Your task to perform on an android device: turn on data saver in the chrome app Image 0: 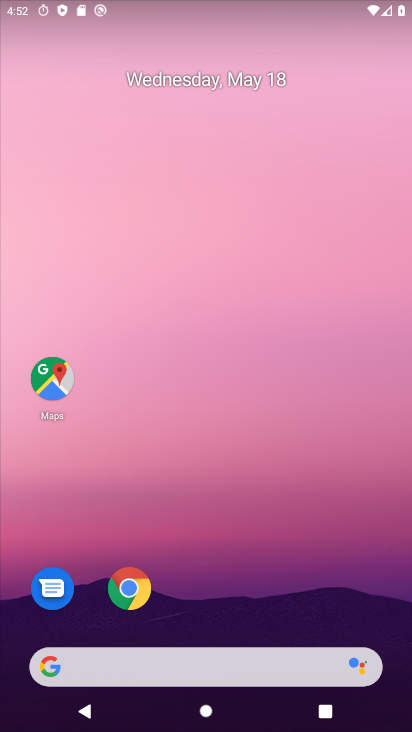
Step 0: click (139, 593)
Your task to perform on an android device: turn on data saver in the chrome app Image 1: 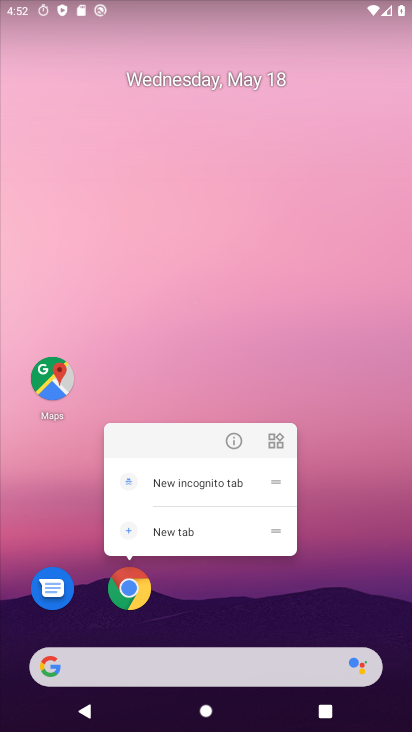
Step 1: click (129, 589)
Your task to perform on an android device: turn on data saver in the chrome app Image 2: 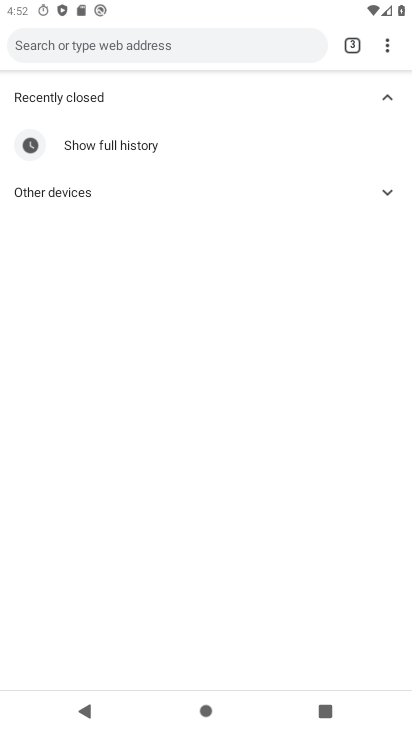
Step 2: click (388, 44)
Your task to perform on an android device: turn on data saver in the chrome app Image 3: 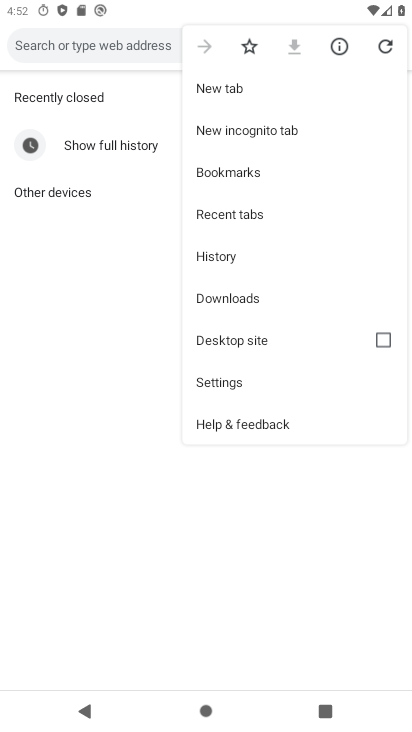
Step 3: click (221, 375)
Your task to perform on an android device: turn on data saver in the chrome app Image 4: 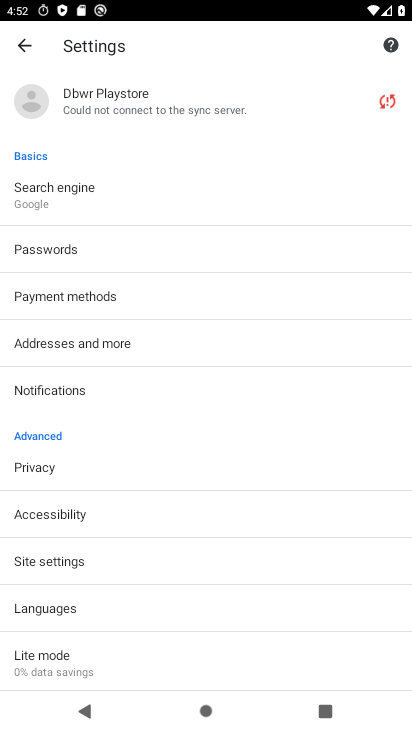
Step 4: drag from (141, 596) to (226, 255)
Your task to perform on an android device: turn on data saver in the chrome app Image 5: 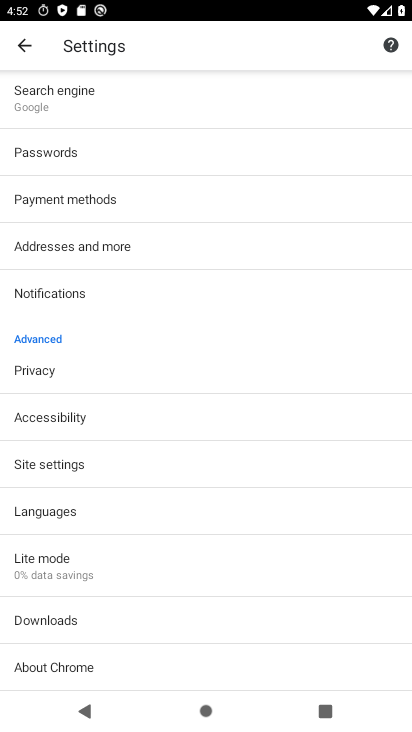
Step 5: click (19, 576)
Your task to perform on an android device: turn on data saver in the chrome app Image 6: 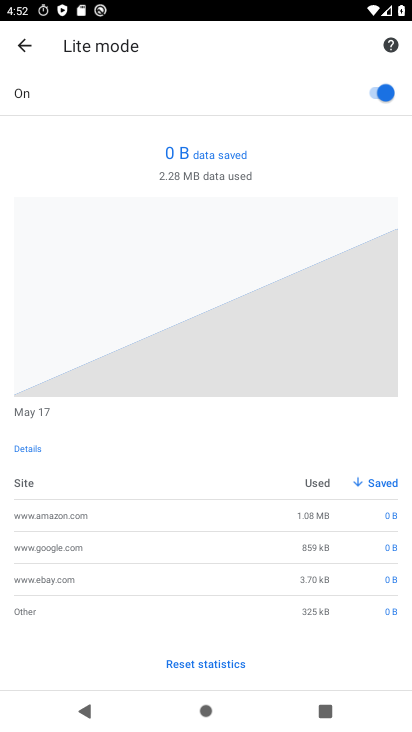
Step 6: task complete